Your task to perform on an android device: turn on the 24-hour format for clock Image 0: 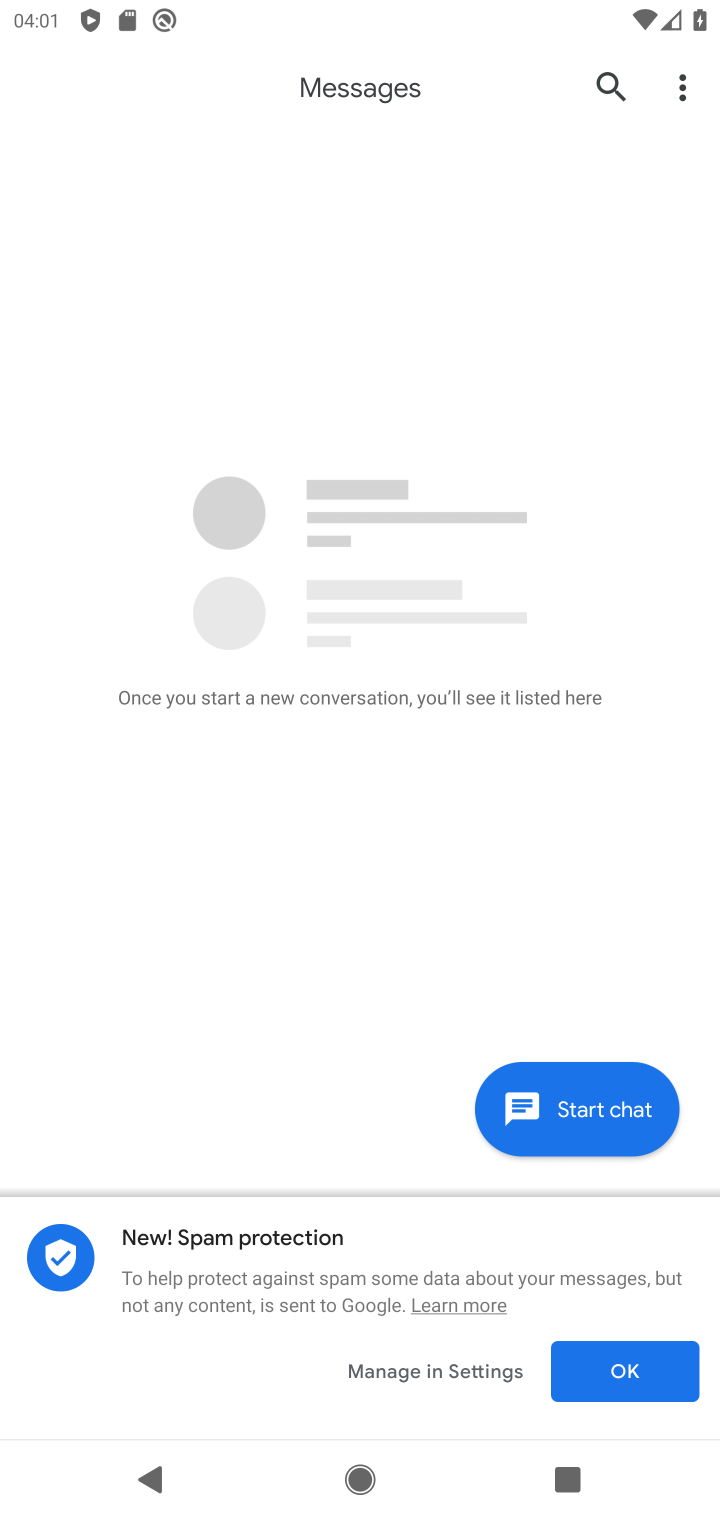
Step 0: press home button
Your task to perform on an android device: turn on the 24-hour format for clock Image 1: 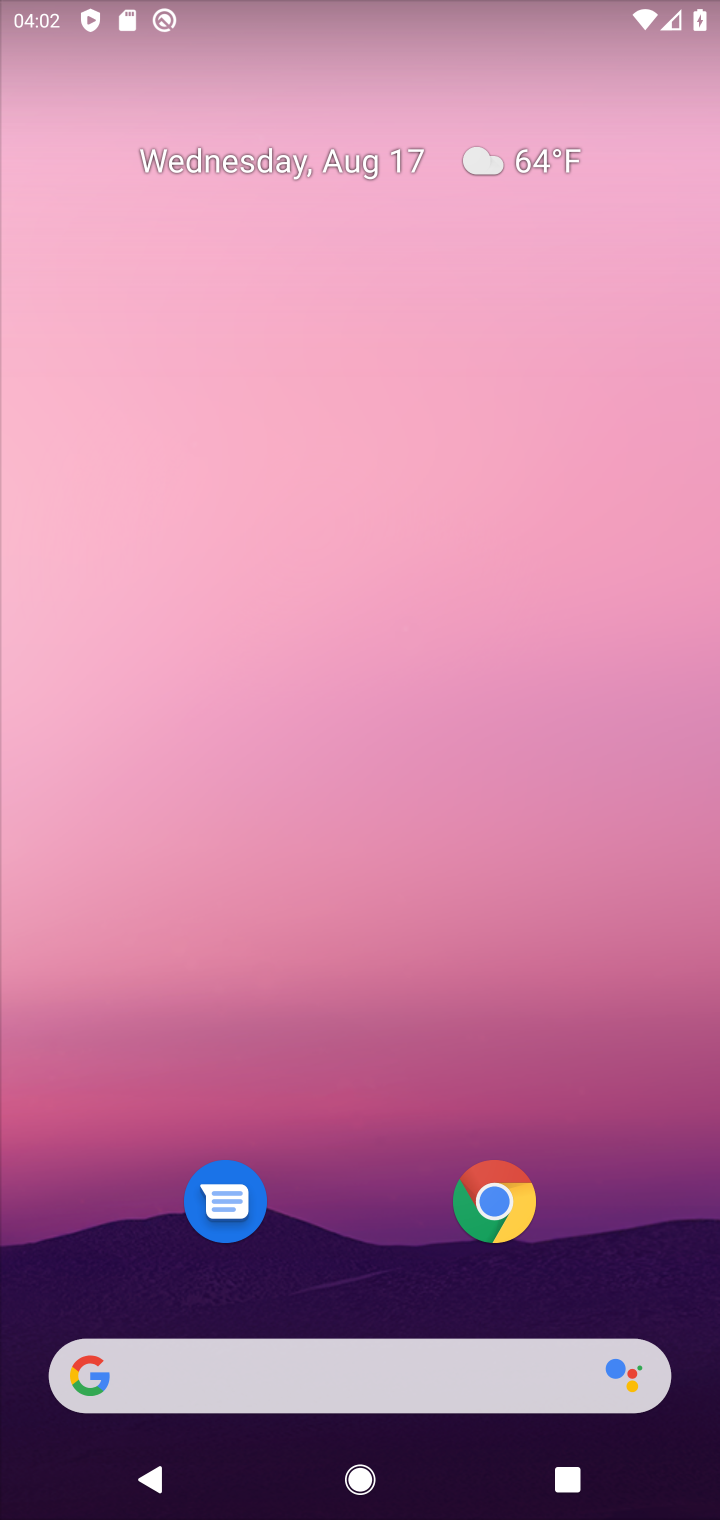
Step 1: drag from (344, 1113) to (441, 10)
Your task to perform on an android device: turn on the 24-hour format for clock Image 2: 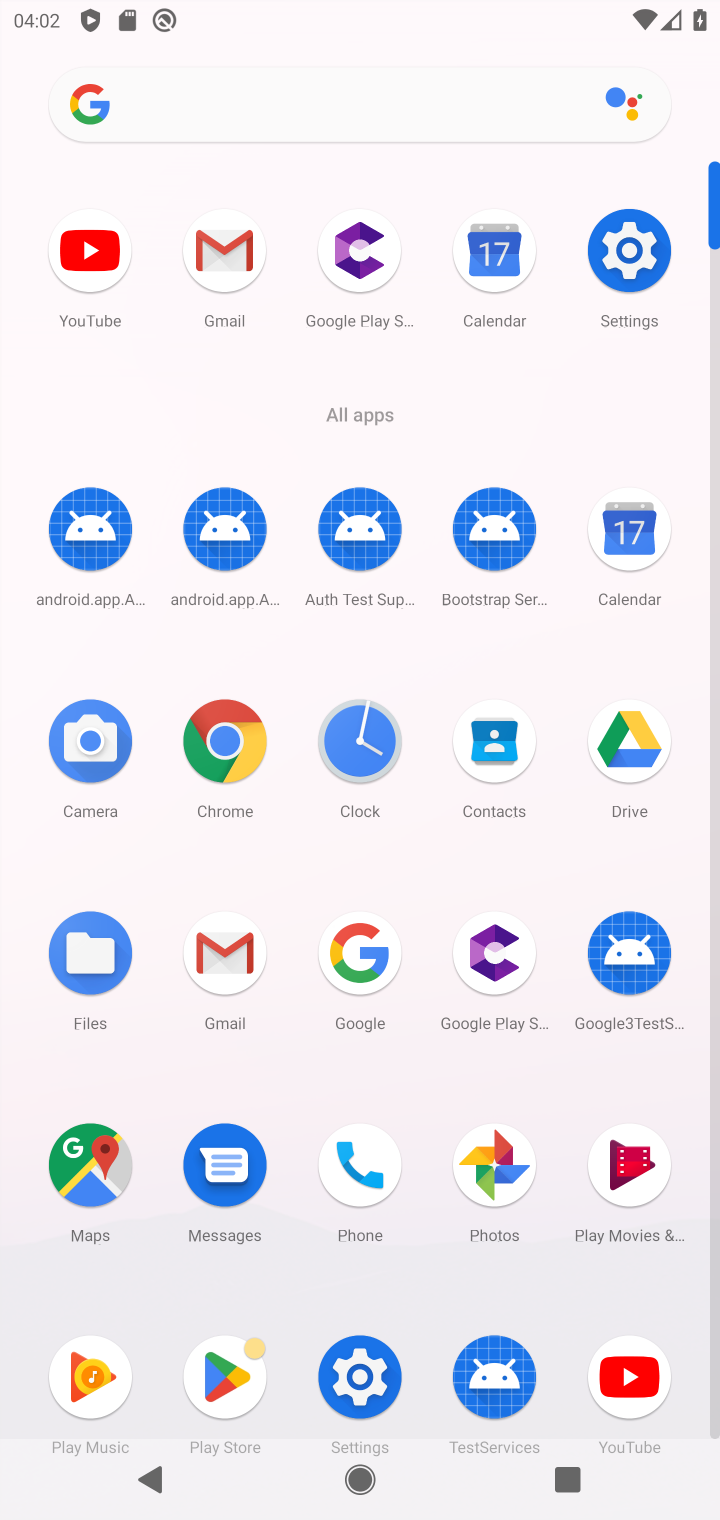
Step 2: click (349, 1380)
Your task to perform on an android device: turn on the 24-hour format for clock Image 3: 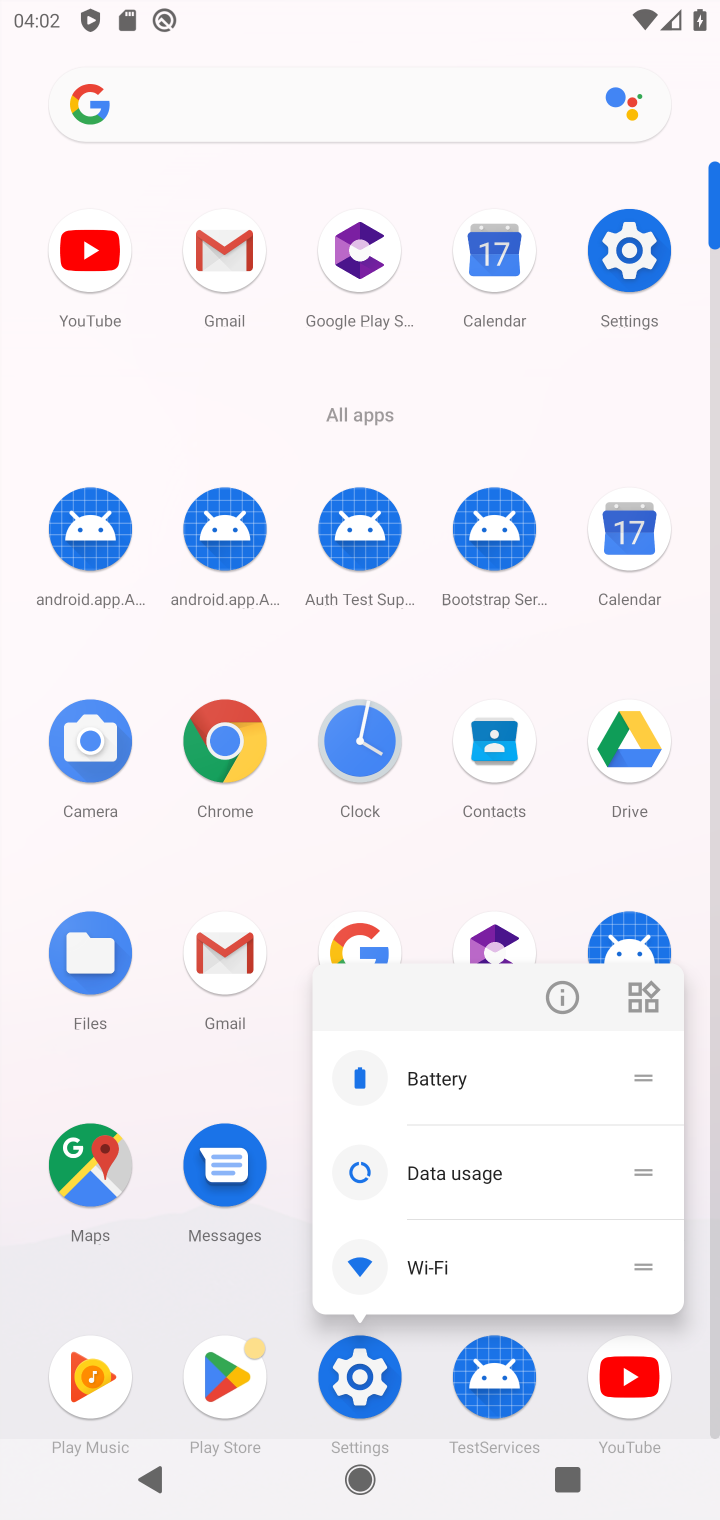
Step 3: click (349, 1380)
Your task to perform on an android device: turn on the 24-hour format for clock Image 4: 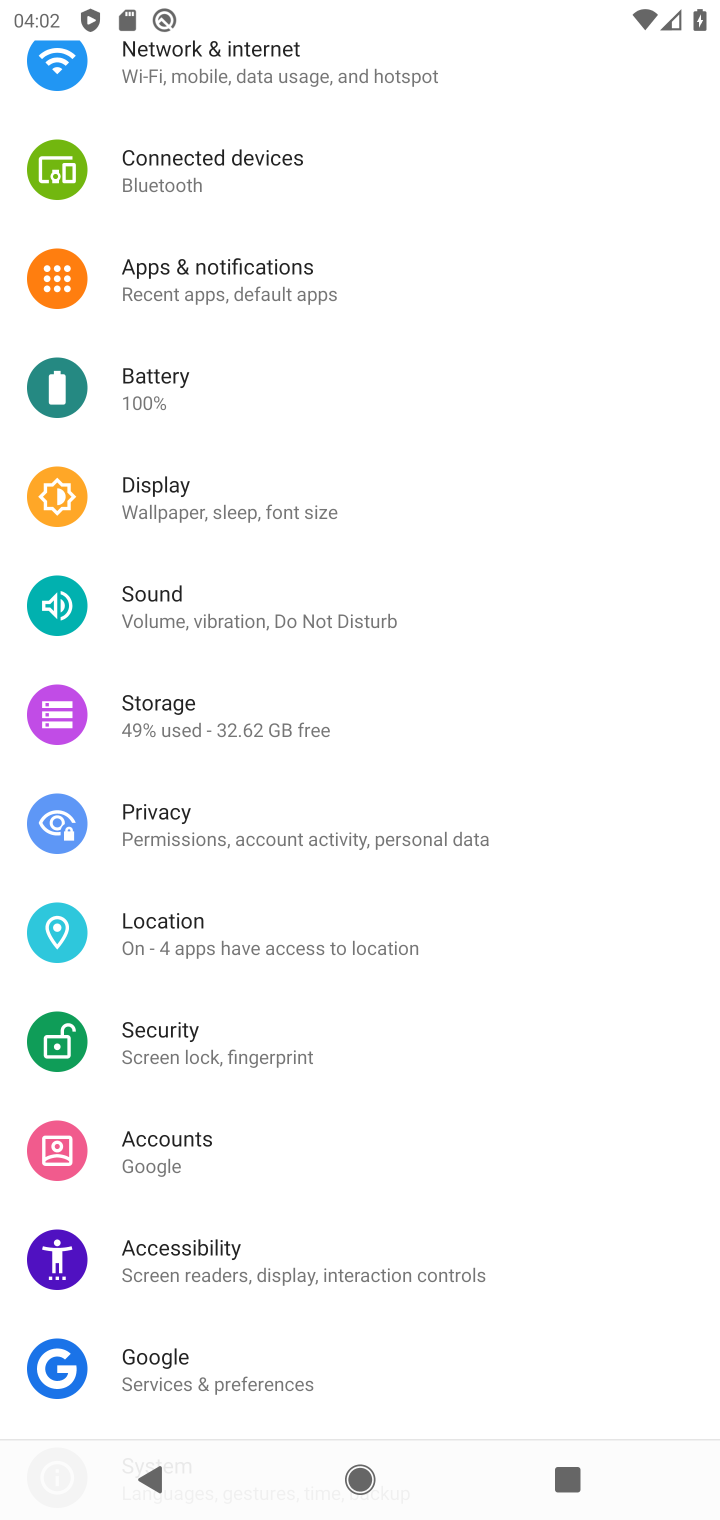
Step 4: drag from (247, 1317) to (268, 493)
Your task to perform on an android device: turn on the 24-hour format for clock Image 5: 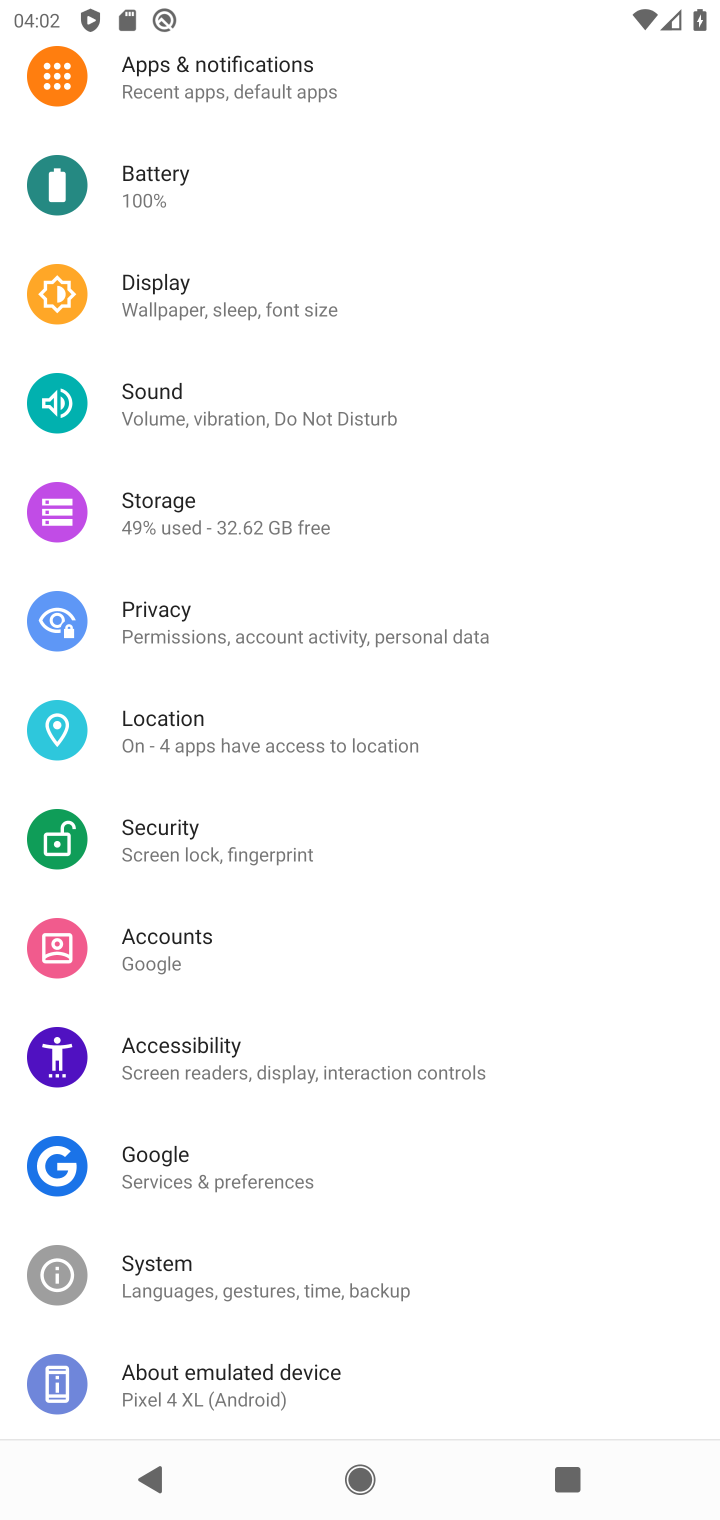
Step 5: click (223, 1293)
Your task to perform on an android device: turn on the 24-hour format for clock Image 6: 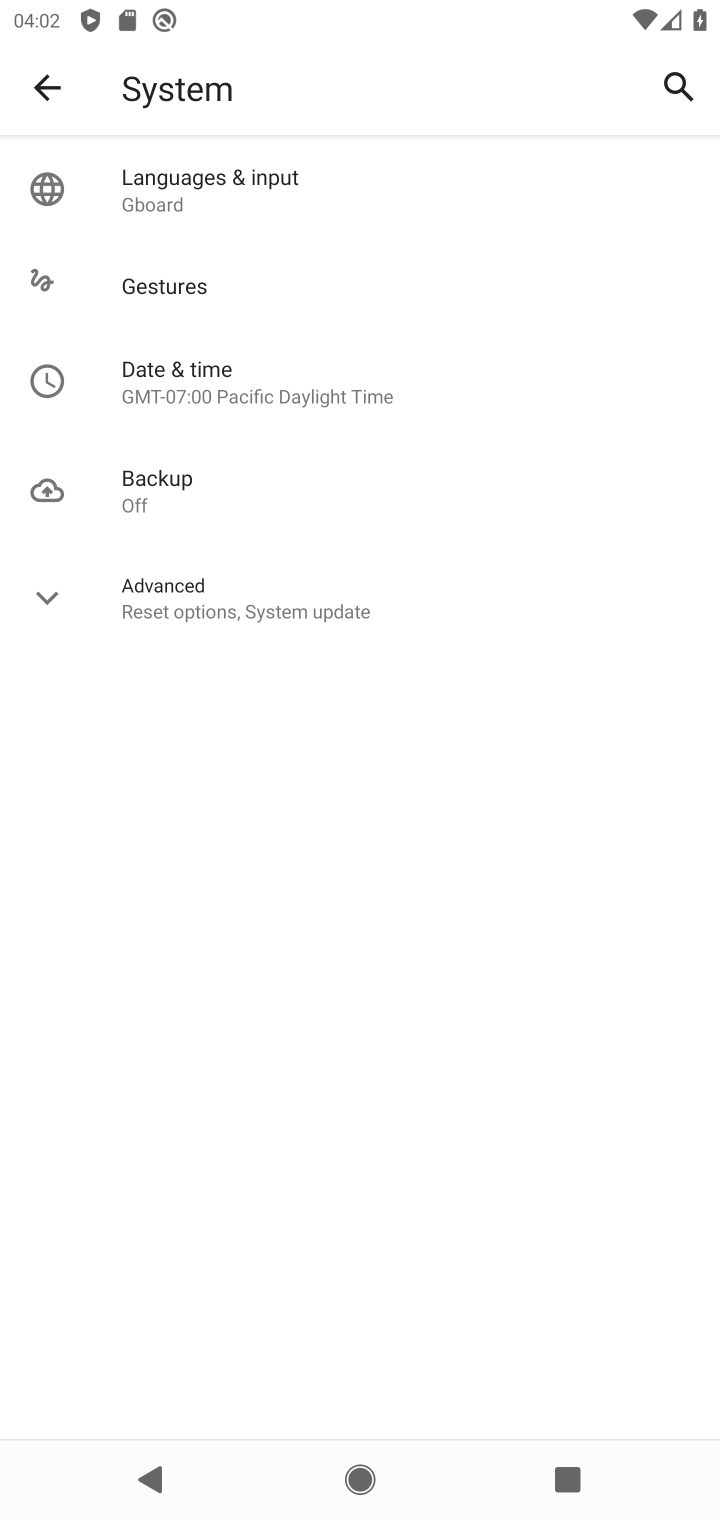
Step 6: click (246, 373)
Your task to perform on an android device: turn on the 24-hour format for clock Image 7: 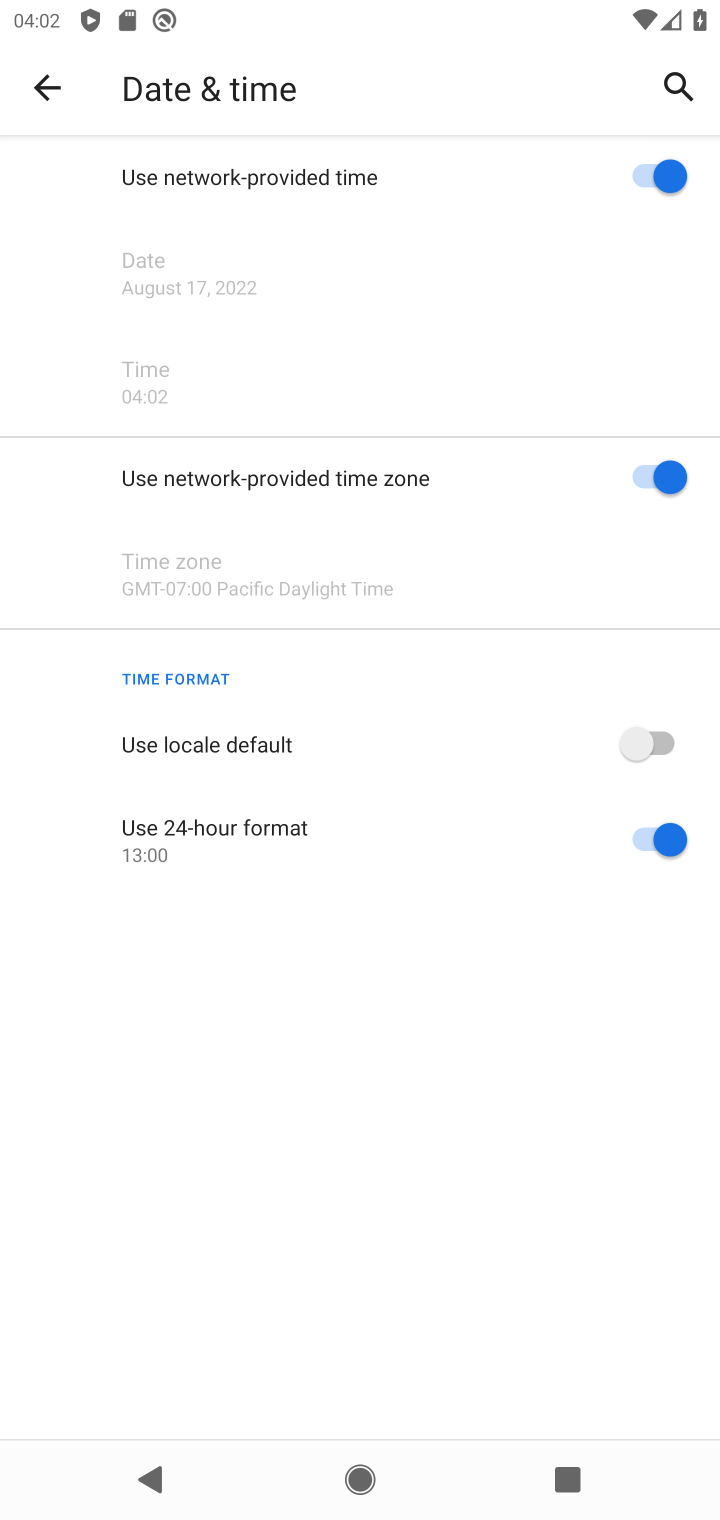
Step 7: task complete